Your task to perform on an android device: snooze an email in the gmail app Image 0: 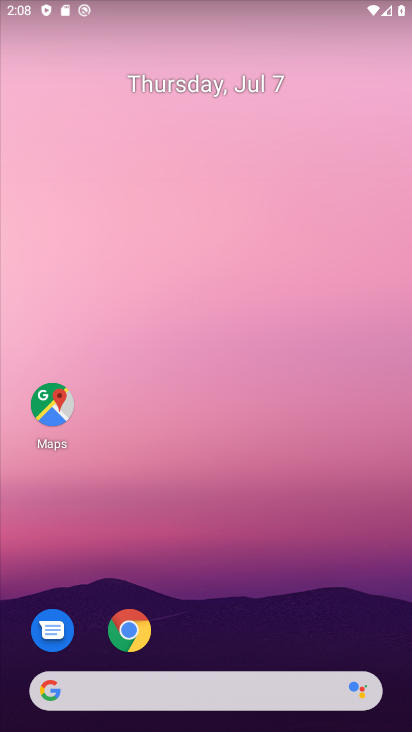
Step 0: drag from (141, 666) to (172, 304)
Your task to perform on an android device: snooze an email in the gmail app Image 1: 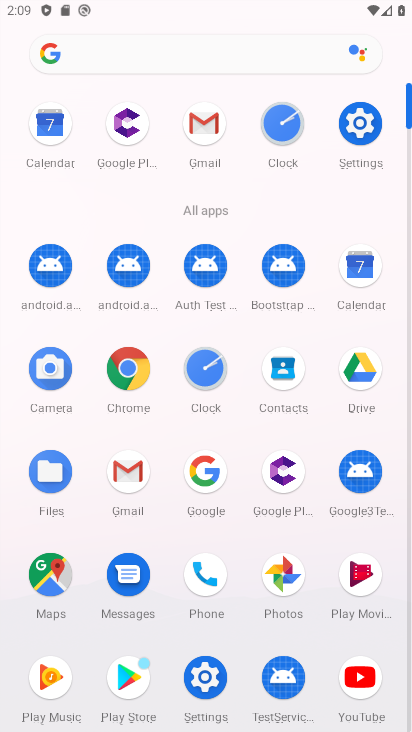
Step 1: click (206, 122)
Your task to perform on an android device: snooze an email in the gmail app Image 2: 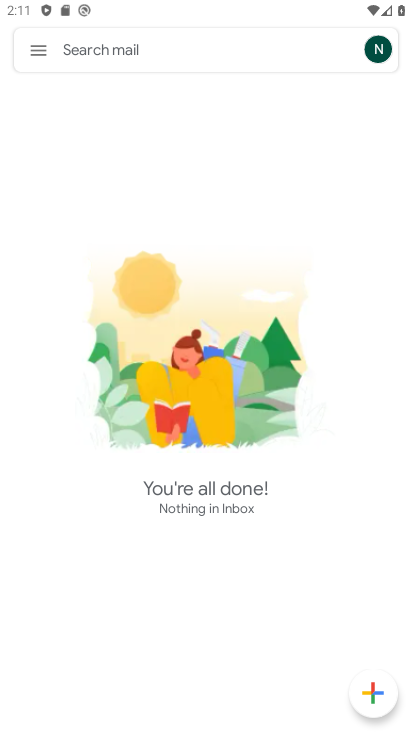
Step 2: task complete